Your task to perform on an android device: move a message to another label in the gmail app Image 0: 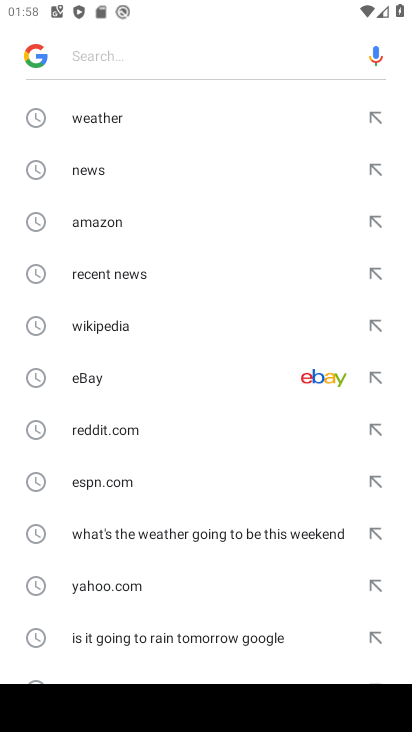
Step 0: press home button
Your task to perform on an android device: move a message to another label in the gmail app Image 1: 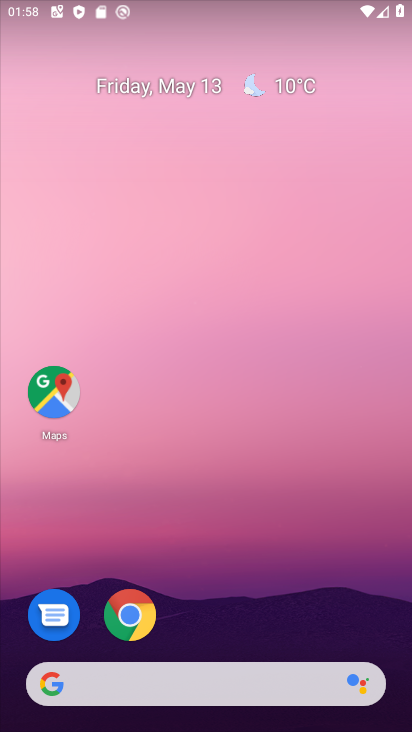
Step 1: drag from (189, 553) to (49, 114)
Your task to perform on an android device: move a message to another label in the gmail app Image 2: 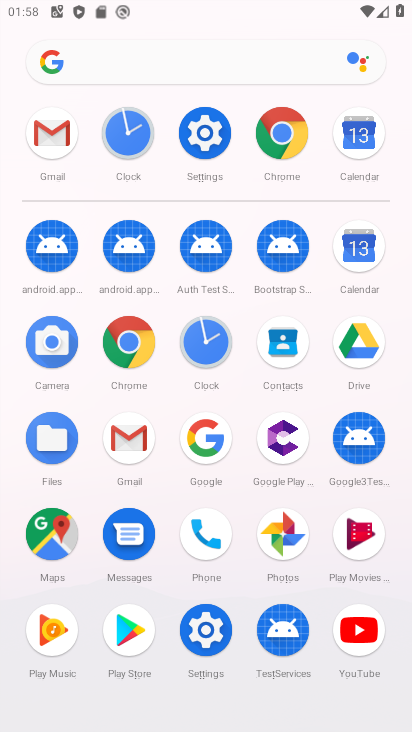
Step 2: click (144, 448)
Your task to perform on an android device: move a message to another label in the gmail app Image 3: 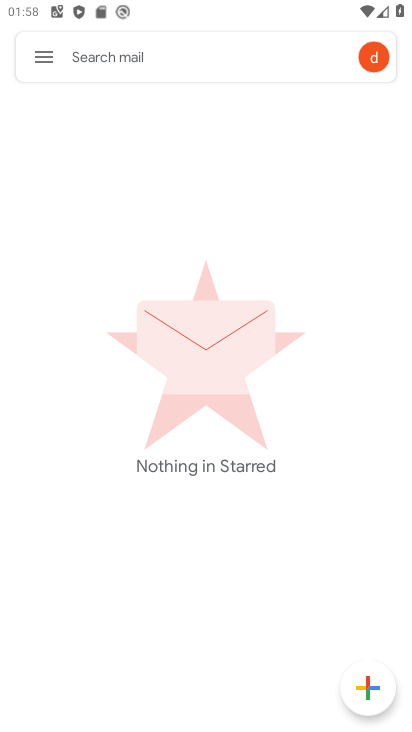
Step 3: click (50, 63)
Your task to perform on an android device: move a message to another label in the gmail app Image 4: 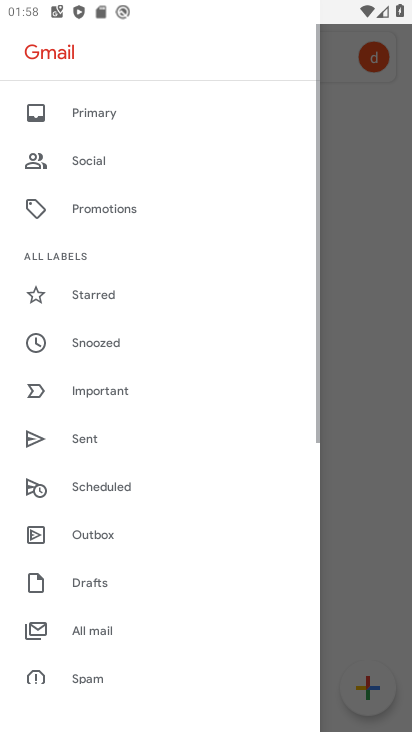
Step 4: drag from (143, 154) to (100, 157)
Your task to perform on an android device: move a message to another label in the gmail app Image 5: 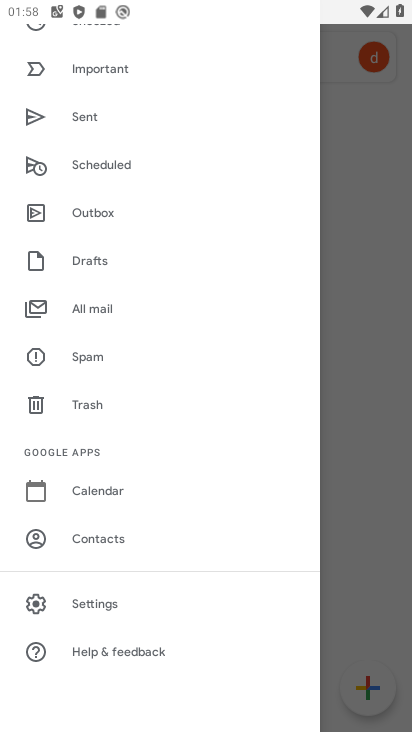
Step 5: drag from (99, 155) to (77, 612)
Your task to perform on an android device: move a message to another label in the gmail app Image 6: 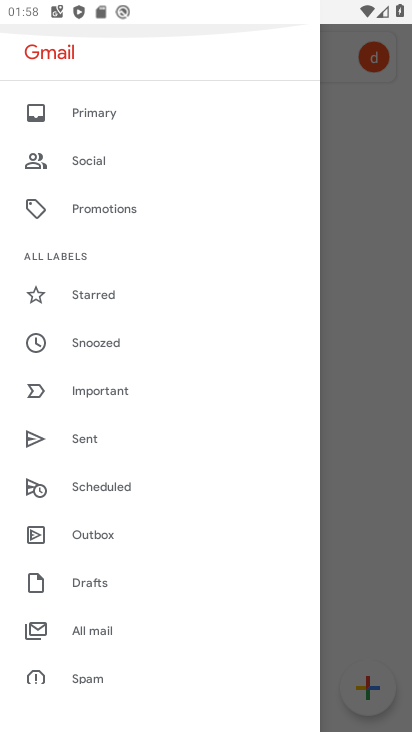
Step 6: click (377, 285)
Your task to perform on an android device: move a message to another label in the gmail app Image 7: 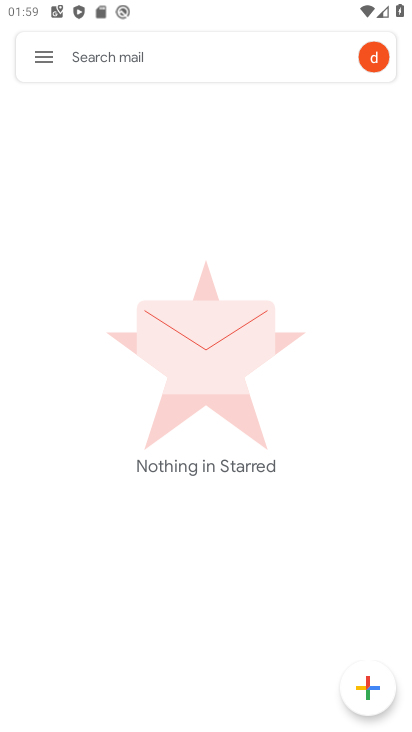
Step 7: task complete